Your task to perform on an android device: turn on notifications settings in the gmail app Image 0: 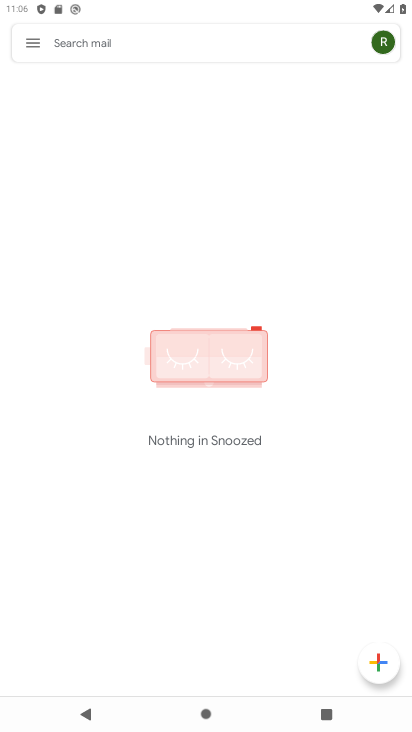
Step 0: task complete